Your task to perform on an android device: Go to Reddit.com Image 0: 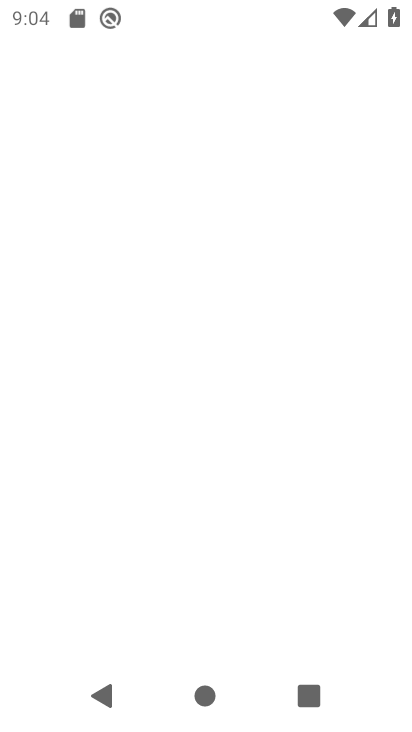
Step 0: press home button
Your task to perform on an android device: Go to Reddit.com Image 1: 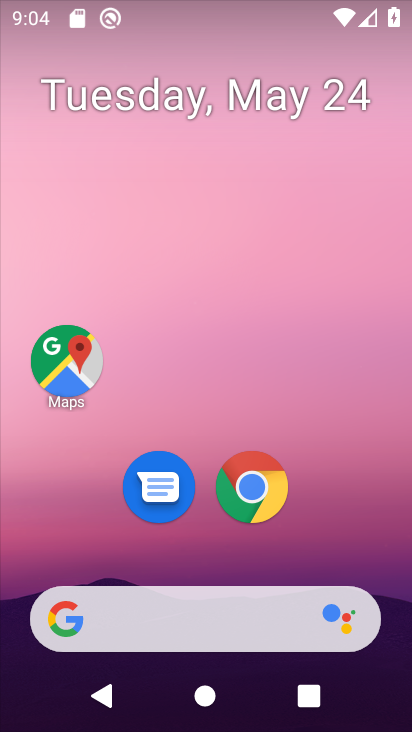
Step 1: click (247, 497)
Your task to perform on an android device: Go to Reddit.com Image 2: 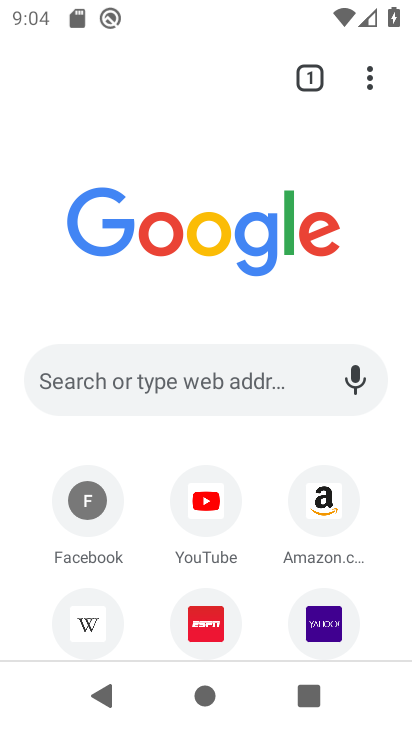
Step 2: click (149, 371)
Your task to perform on an android device: Go to Reddit.com Image 3: 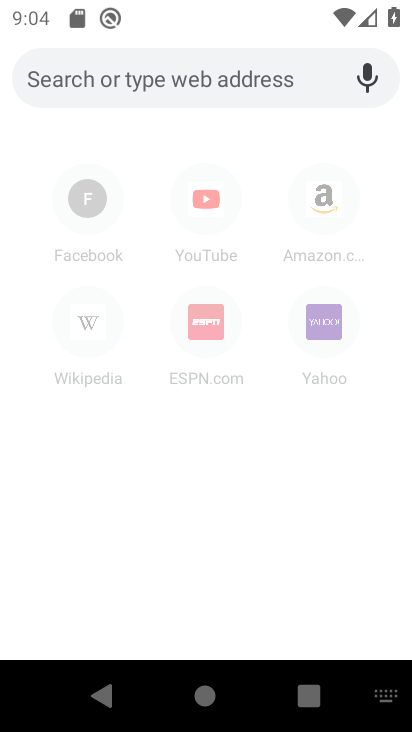
Step 3: type "reddit.com"
Your task to perform on an android device: Go to Reddit.com Image 4: 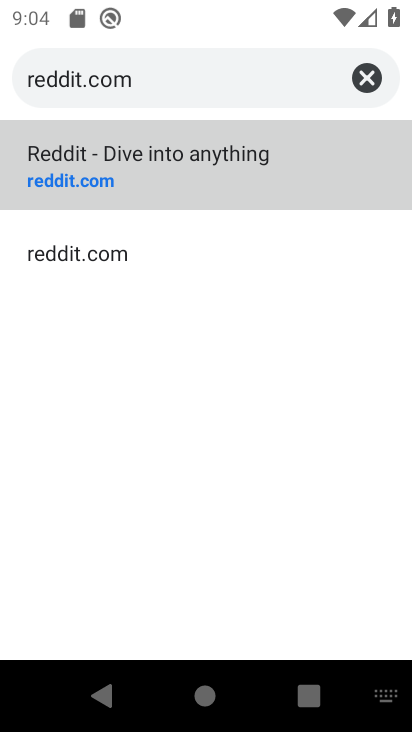
Step 4: click (166, 166)
Your task to perform on an android device: Go to Reddit.com Image 5: 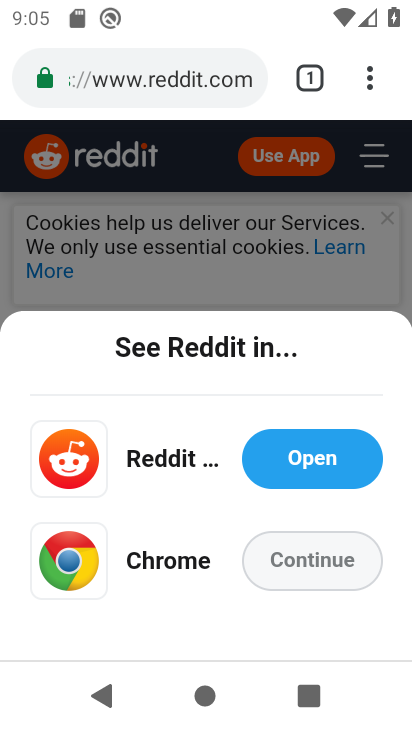
Step 5: task complete